Your task to perform on an android device: Open privacy settings Image 0: 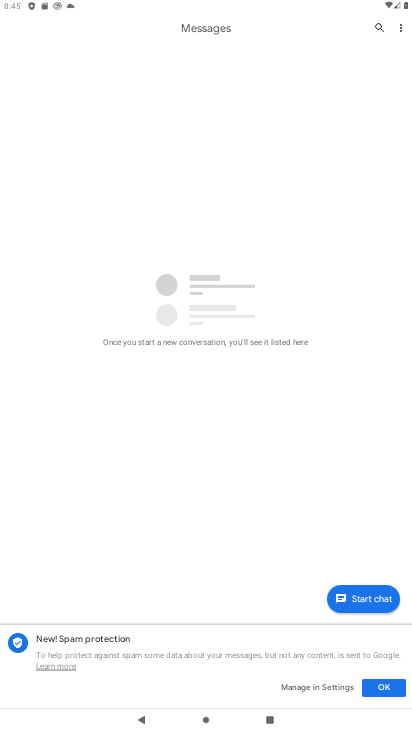
Step 0: click (389, 686)
Your task to perform on an android device: Open privacy settings Image 1: 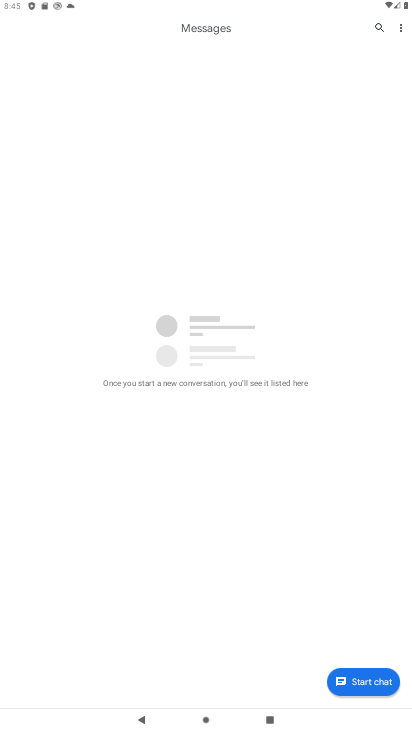
Step 1: press home button
Your task to perform on an android device: Open privacy settings Image 2: 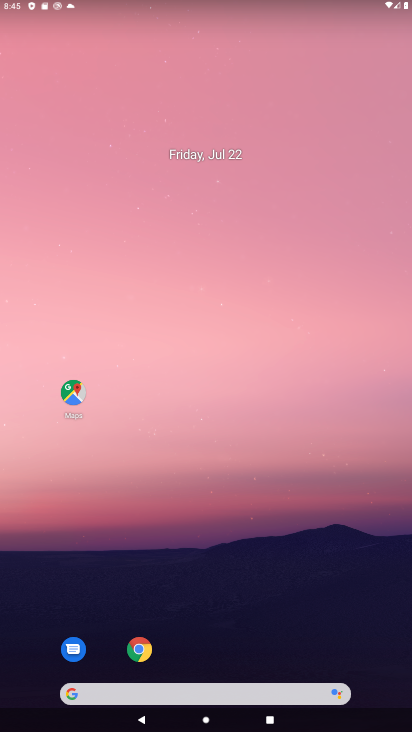
Step 2: drag from (231, 596) to (282, 175)
Your task to perform on an android device: Open privacy settings Image 3: 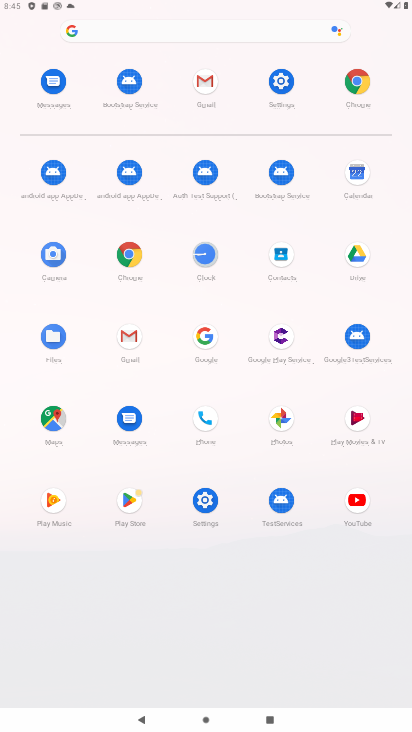
Step 3: click (279, 85)
Your task to perform on an android device: Open privacy settings Image 4: 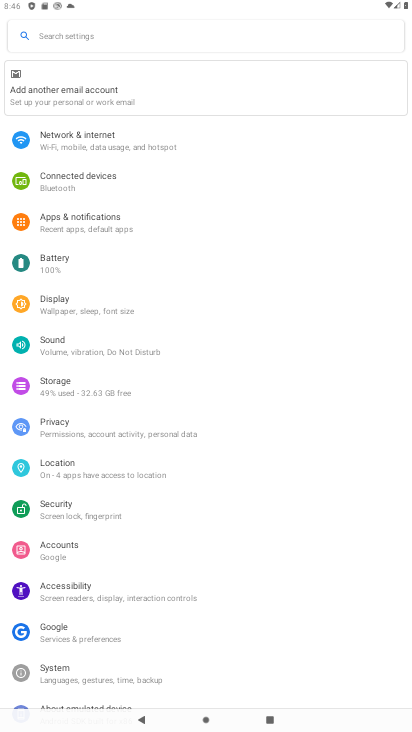
Step 4: task complete